Your task to perform on an android device: set the stopwatch Image 0: 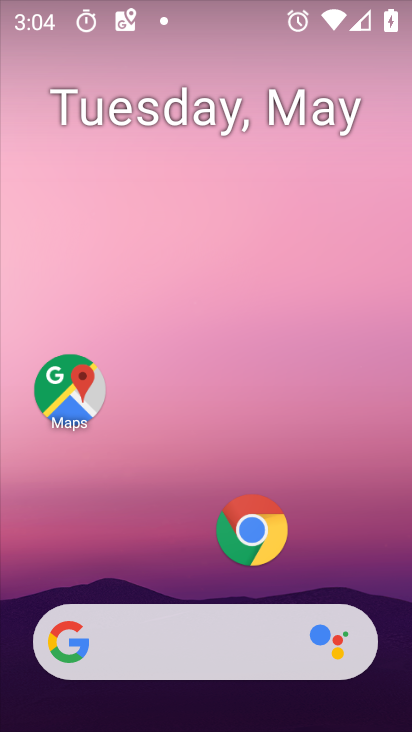
Step 0: drag from (213, 590) to (211, 14)
Your task to perform on an android device: set the stopwatch Image 1: 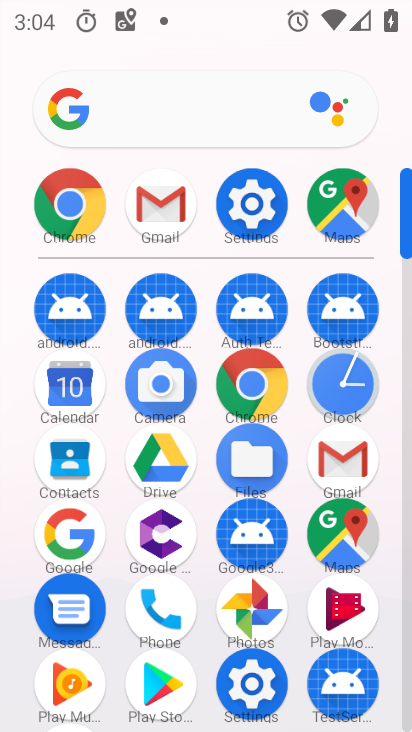
Step 1: click (324, 378)
Your task to perform on an android device: set the stopwatch Image 2: 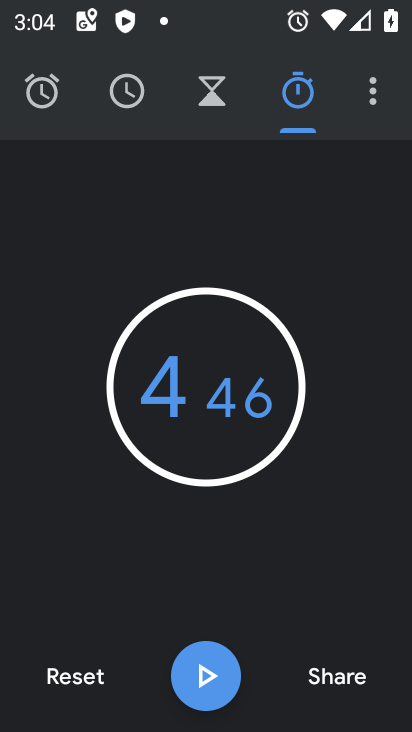
Step 2: click (200, 686)
Your task to perform on an android device: set the stopwatch Image 3: 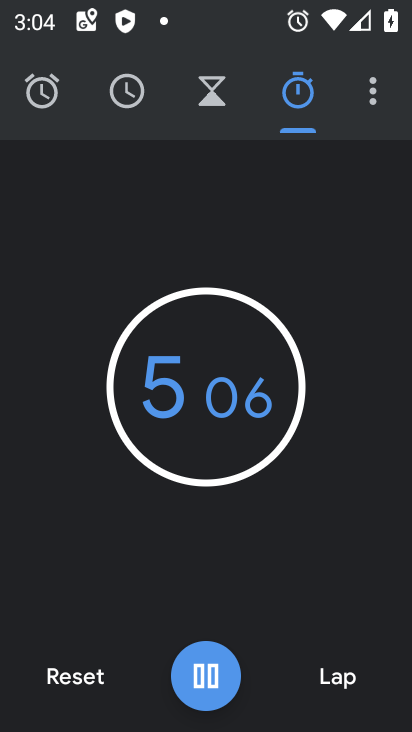
Step 3: task complete